Your task to perform on an android device: Open the Play Movies app and select the watchlist tab. Image 0: 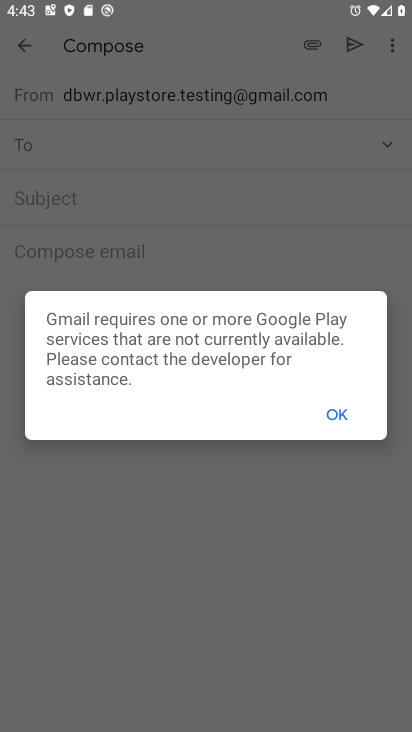
Step 0: press home button
Your task to perform on an android device: Open the Play Movies app and select the watchlist tab. Image 1: 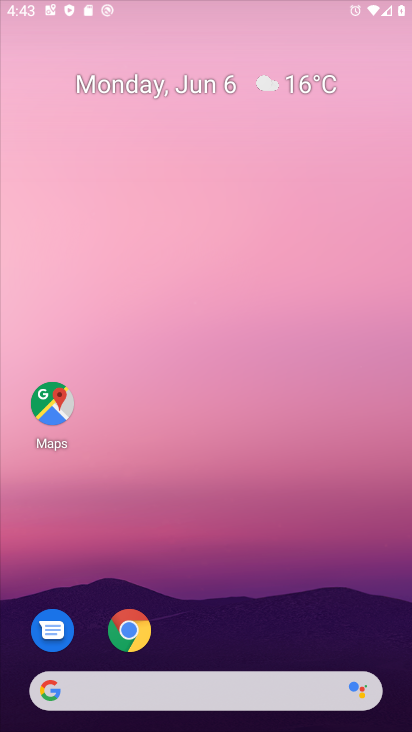
Step 1: drag from (373, 614) to (232, 20)
Your task to perform on an android device: Open the Play Movies app and select the watchlist tab. Image 2: 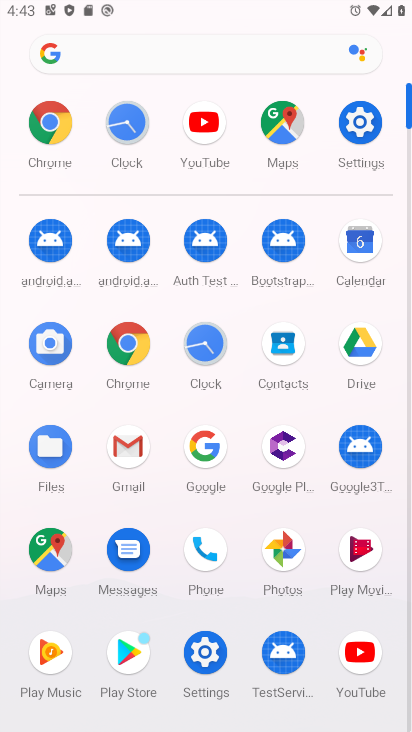
Step 2: click (368, 558)
Your task to perform on an android device: Open the Play Movies app and select the watchlist tab. Image 3: 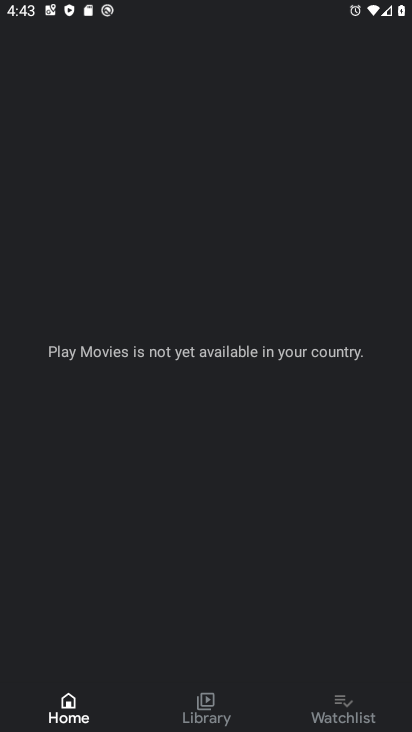
Step 3: click (361, 706)
Your task to perform on an android device: Open the Play Movies app and select the watchlist tab. Image 4: 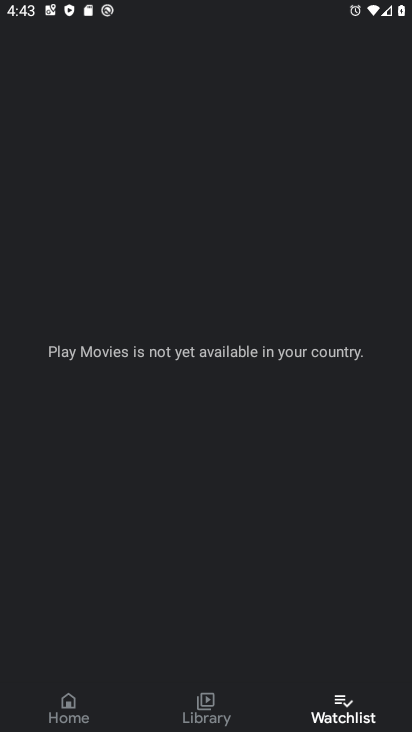
Step 4: task complete